Your task to perform on an android device: Open the Play Movies app and select the watchlist tab. Image 0: 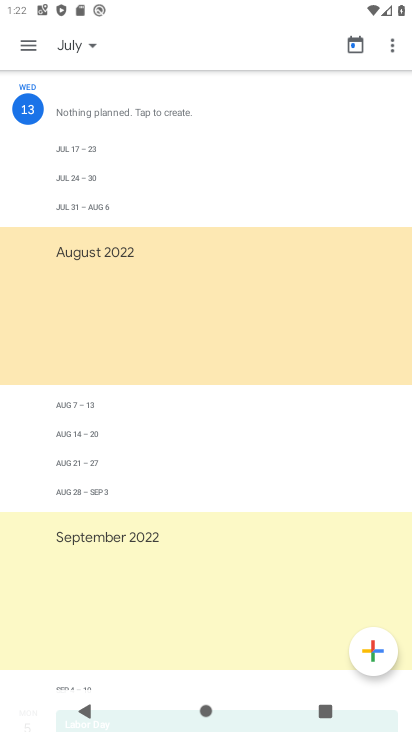
Step 0: press home button
Your task to perform on an android device: Open the Play Movies app and select the watchlist tab. Image 1: 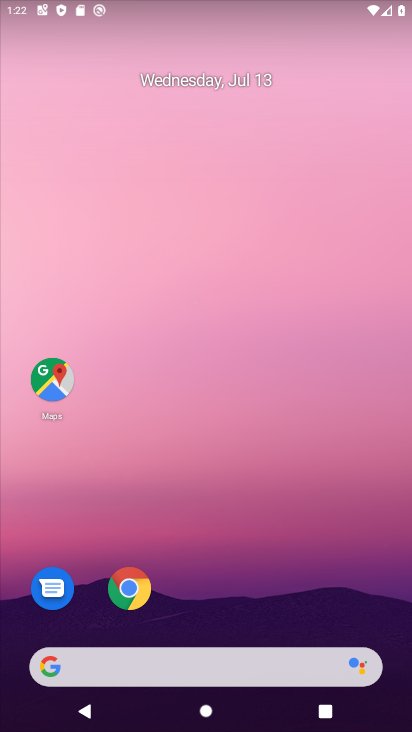
Step 1: drag from (167, 651) to (191, 288)
Your task to perform on an android device: Open the Play Movies app and select the watchlist tab. Image 2: 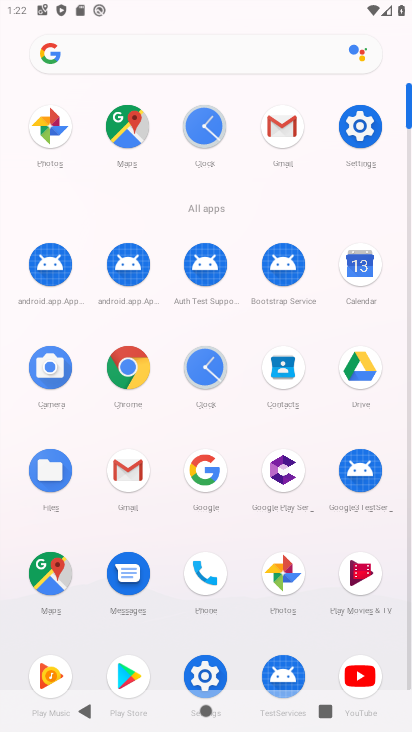
Step 2: click (367, 582)
Your task to perform on an android device: Open the Play Movies app and select the watchlist tab. Image 3: 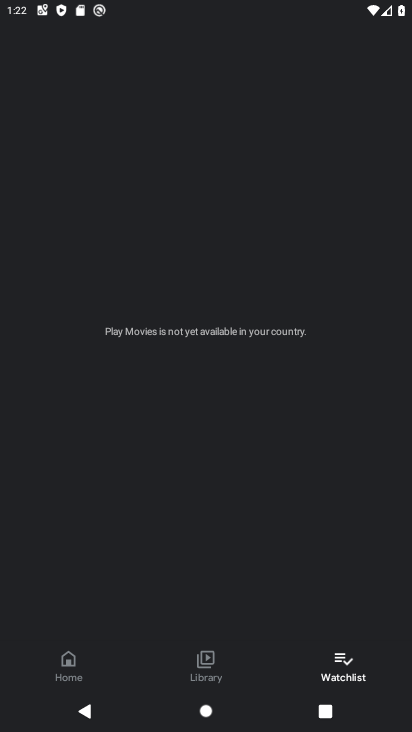
Step 3: task complete